Your task to perform on an android device: create a new album in the google photos Image 0: 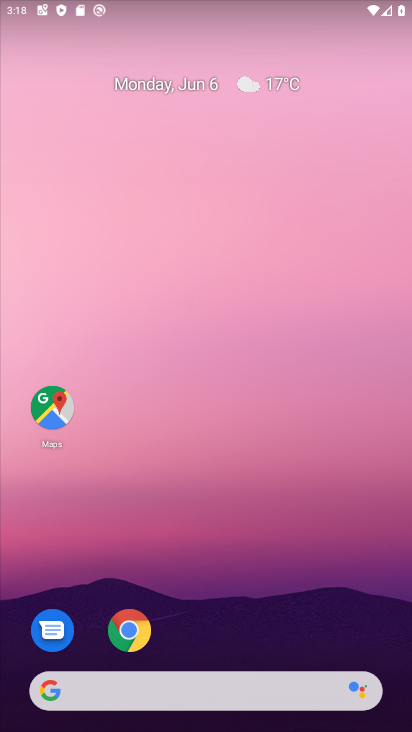
Step 0: drag from (203, 598) to (221, 142)
Your task to perform on an android device: create a new album in the google photos Image 1: 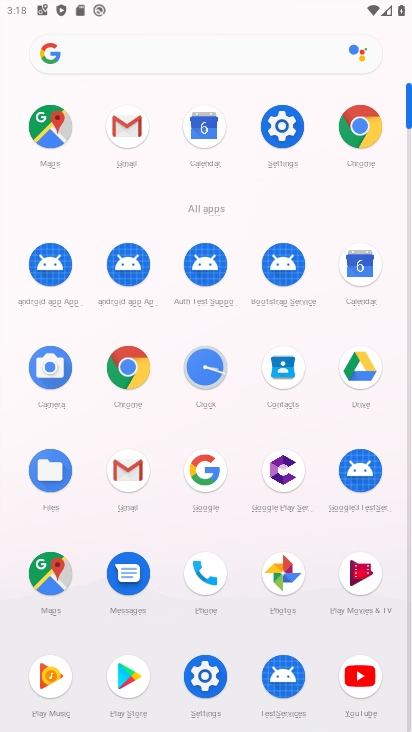
Step 1: click (286, 127)
Your task to perform on an android device: create a new album in the google photos Image 2: 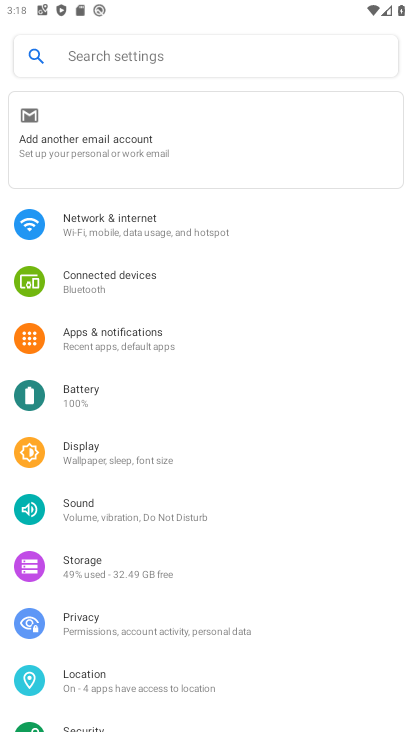
Step 2: click (102, 675)
Your task to perform on an android device: create a new album in the google photos Image 3: 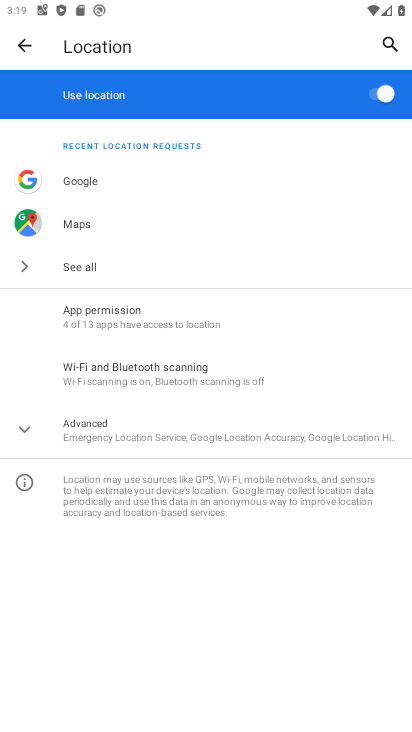
Step 3: press home button
Your task to perform on an android device: create a new album in the google photos Image 4: 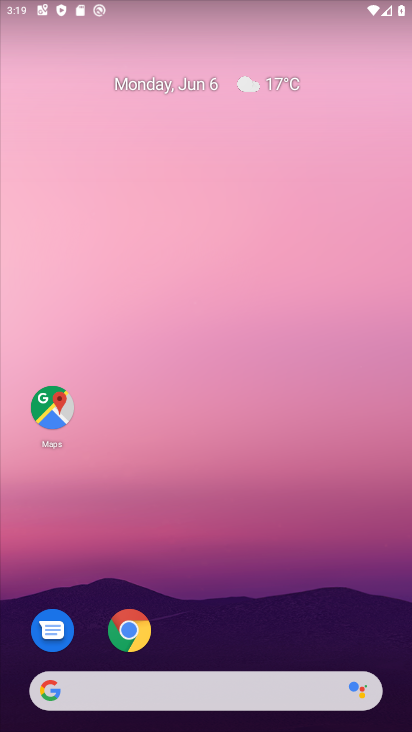
Step 4: drag from (231, 648) to (326, 54)
Your task to perform on an android device: create a new album in the google photos Image 5: 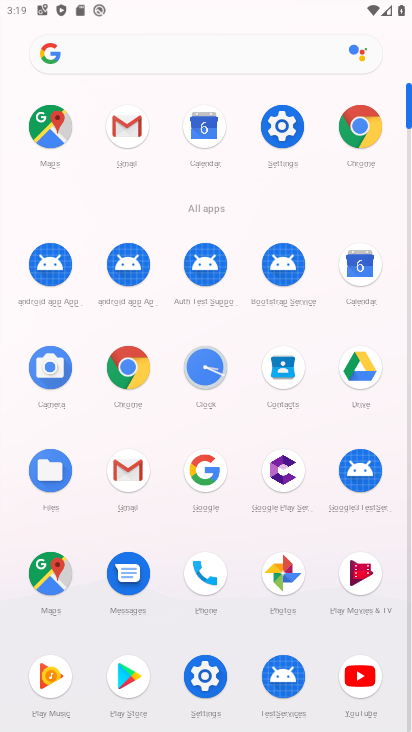
Step 5: click (285, 562)
Your task to perform on an android device: create a new album in the google photos Image 6: 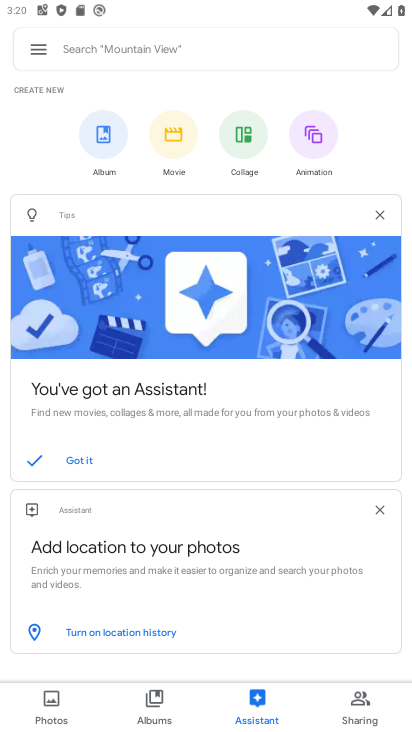
Step 6: click (110, 137)
Your task to perform on an android device: create a new album in the google photos Image 7: 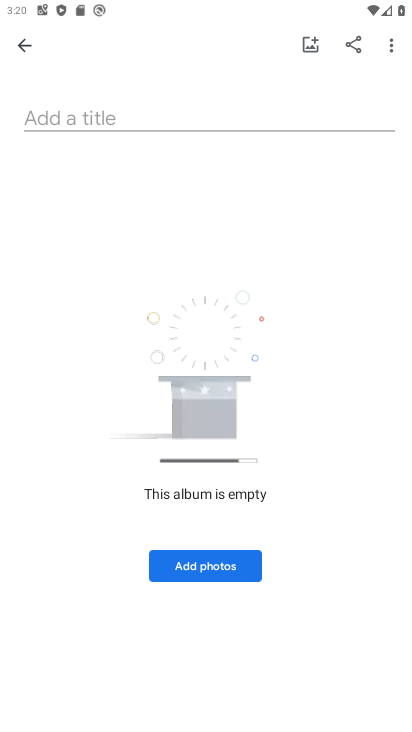
Step 7: click (58, 107)
Your task to perform on an android device: create a new album in the google photos Image 8: 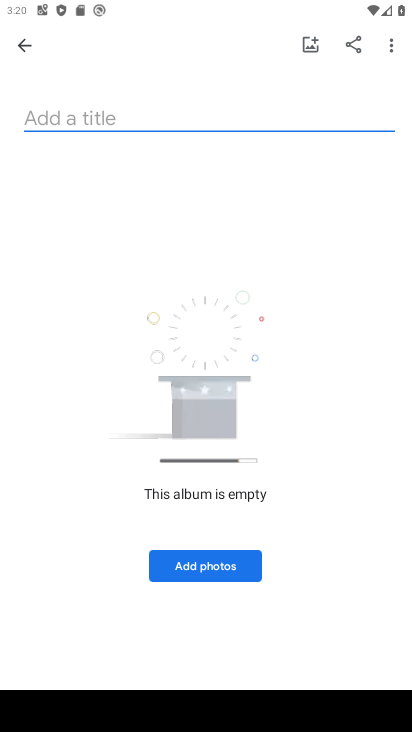
Step 8: type "bvv"
Your task to perform on an android device: create a new album in the google photos Image 9: 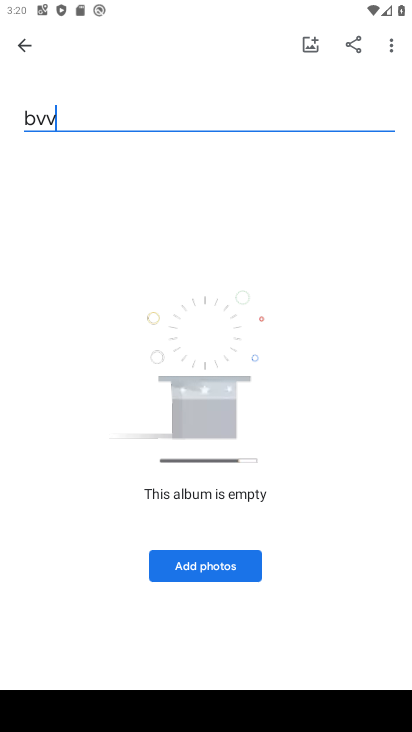
Step 9: click (246, 563)
Your task to perform on an android device: create a new album in the google photos Image 10: 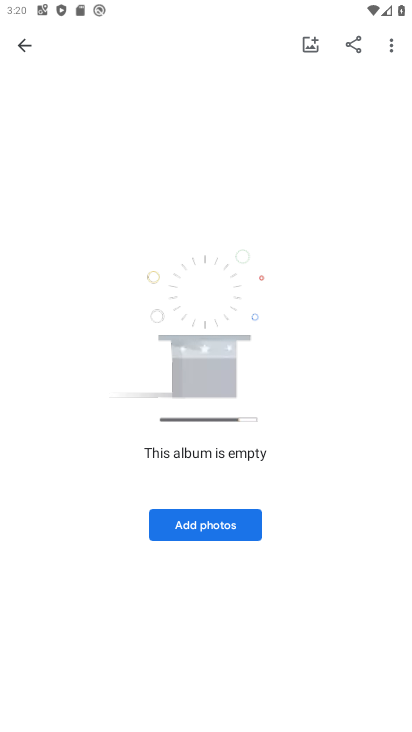
Step 10: click (198, 527)
Your task to perform on an android device: create a new album in the google photos Image 11: 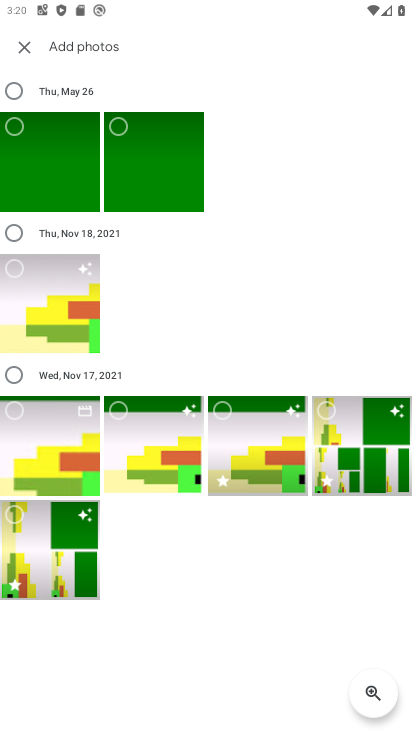
Step 11: click (12, 89)
Your task to perform on an android device: create a new album in the google photos Image 12: 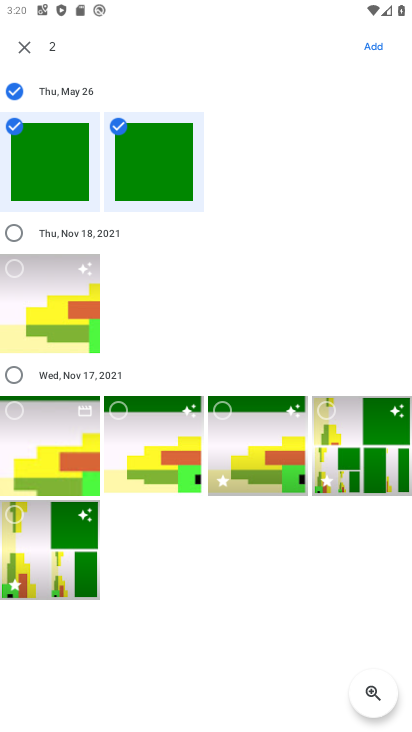
Step 12: click (21, 372)
Your task to perform on an android device: create a new album in the google photos Image 13: 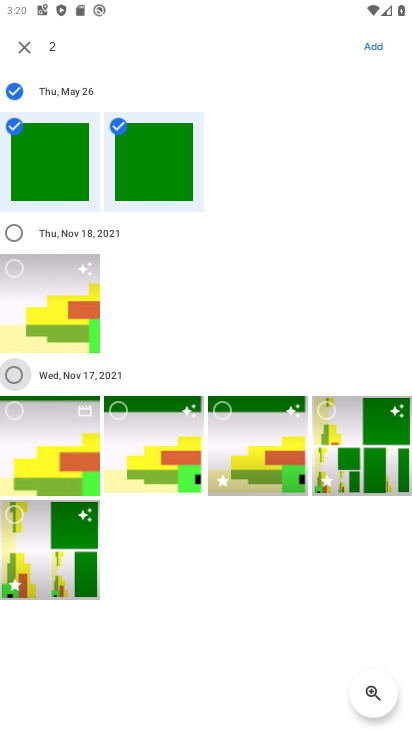
Step 13: click (11, 205)
Your task to perform on an android device: create a new album in the google photos Image 14: 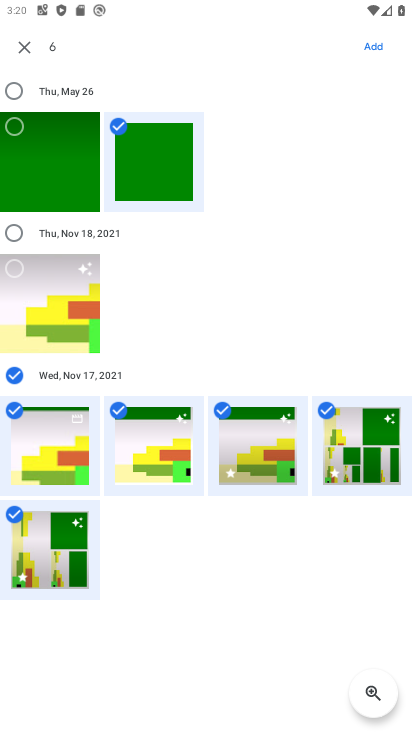
Step 14: click (15, 229)
Your task to perform on an android device: create a new album in the google photos Image 15: 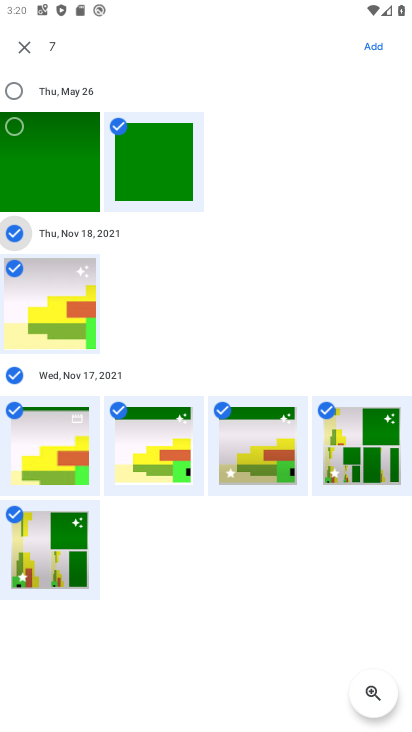
Step 15: click (22, 115)
Your task to perform on an android device: create a new album in the google photos Image 16: 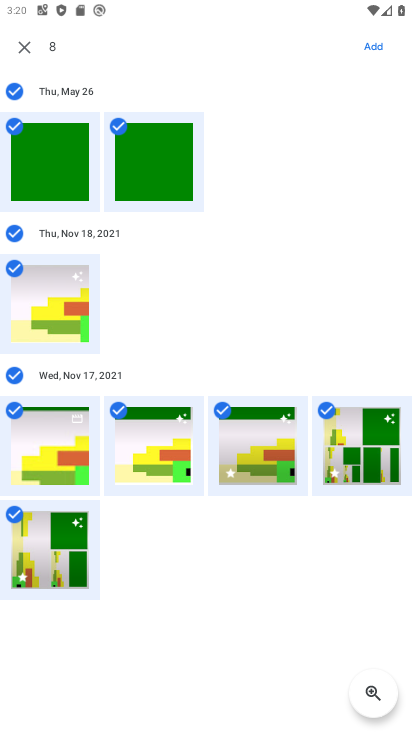
Step 16: click (369, 42)
Your task to perform on an android device: create a new album in the google photos Image 17: 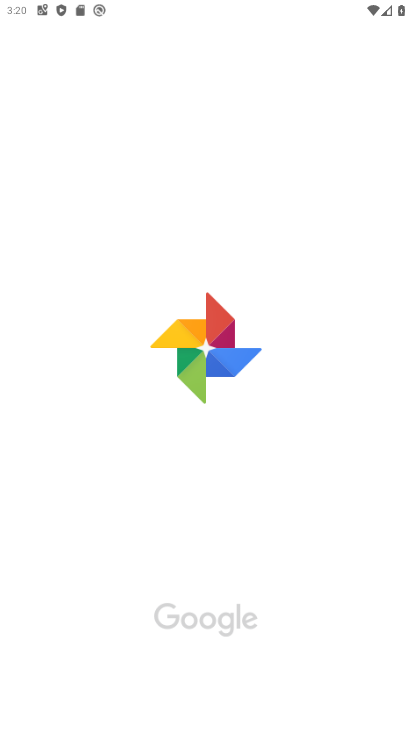
Step 17: task complete